Your task to perform on an android device: open app "Calculator" Image 0: 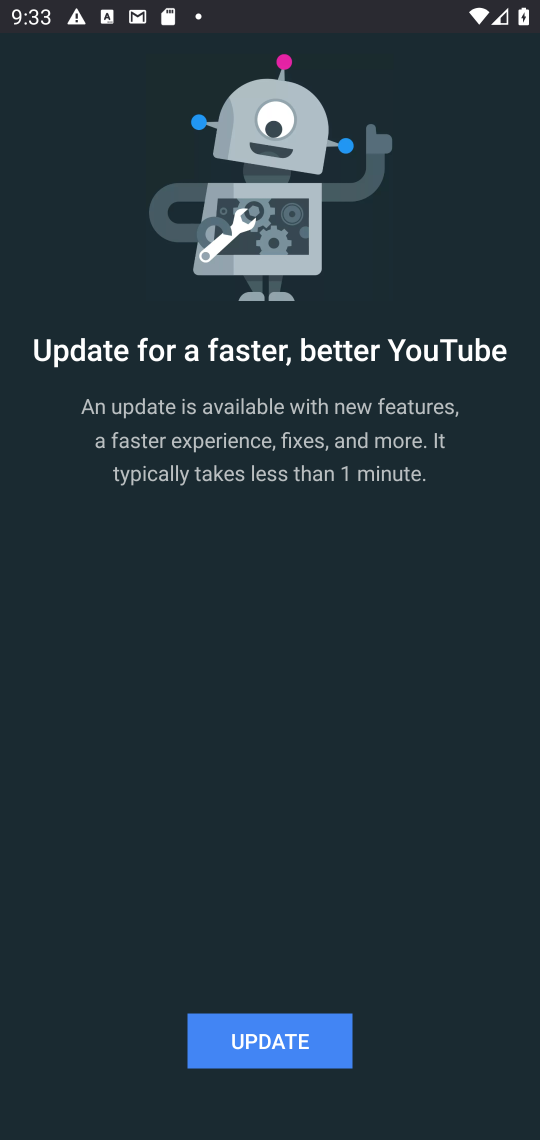
Step 0: press home button
Your task to perform on an android device: open app "Calculator" Image 1: 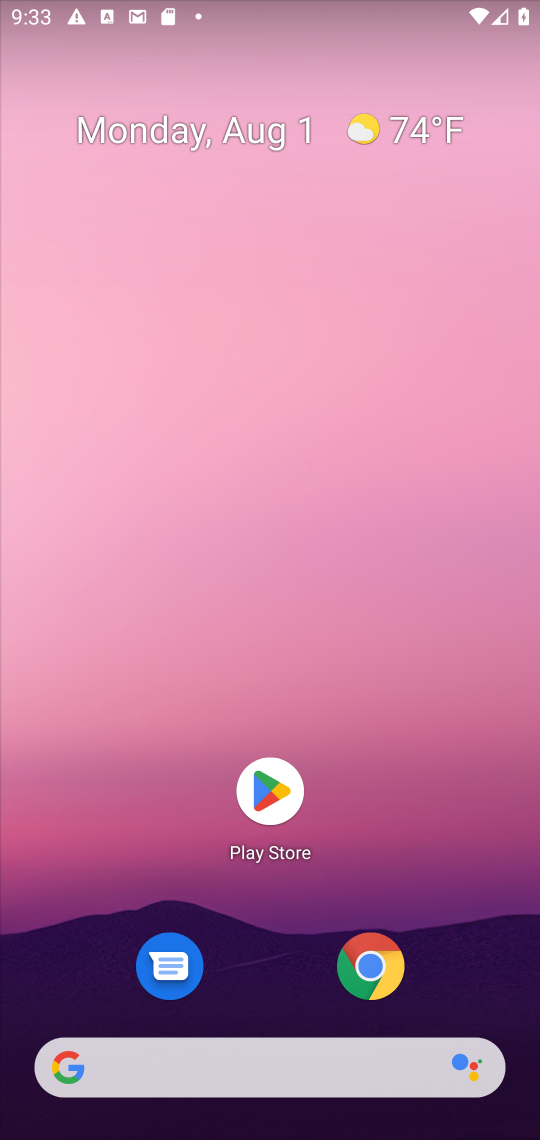
Step 1: drag from (98, 483) to (0, 482)
Your task to perform on an android device: open app "Calculator" Image 2: 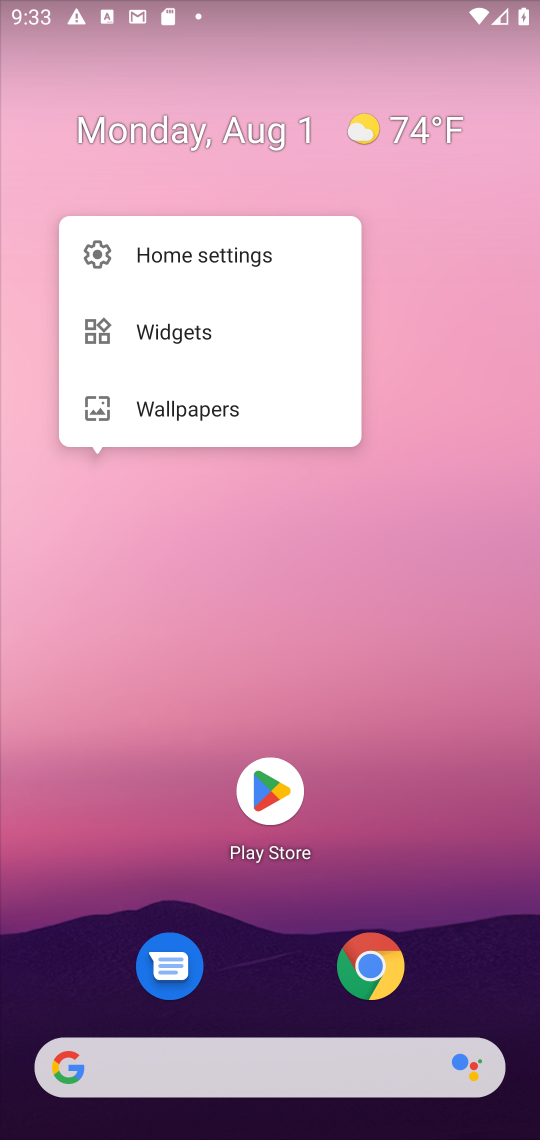
Step 2: click (441, 574)
Your task to perform on an android device: open app "Calculator" Image 3: 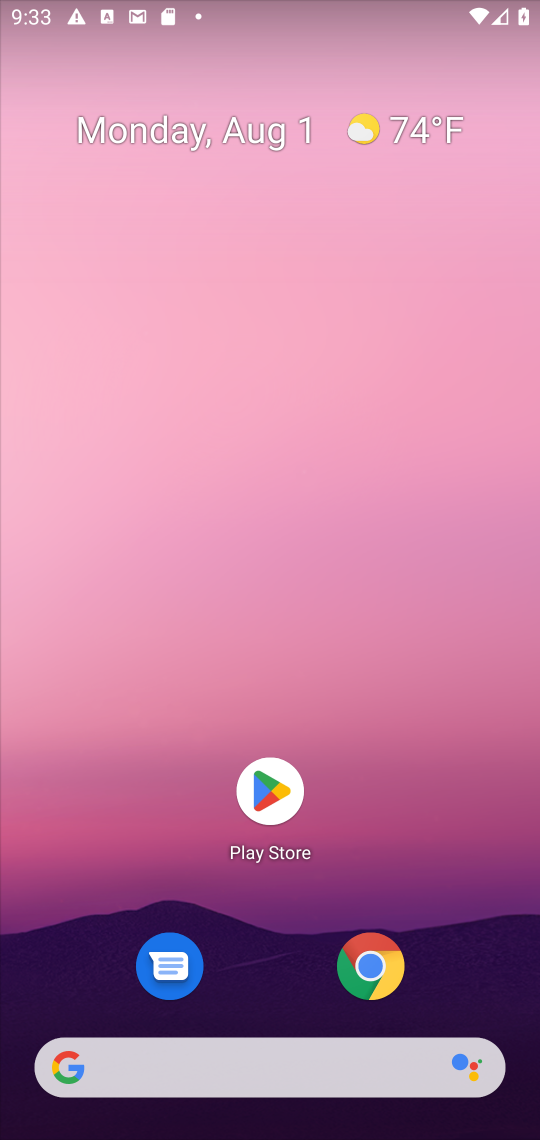
Step 3: drag from (518, 434) to (33, 435)
Your task to perform on an android device: open app "Calculator" Image 4: 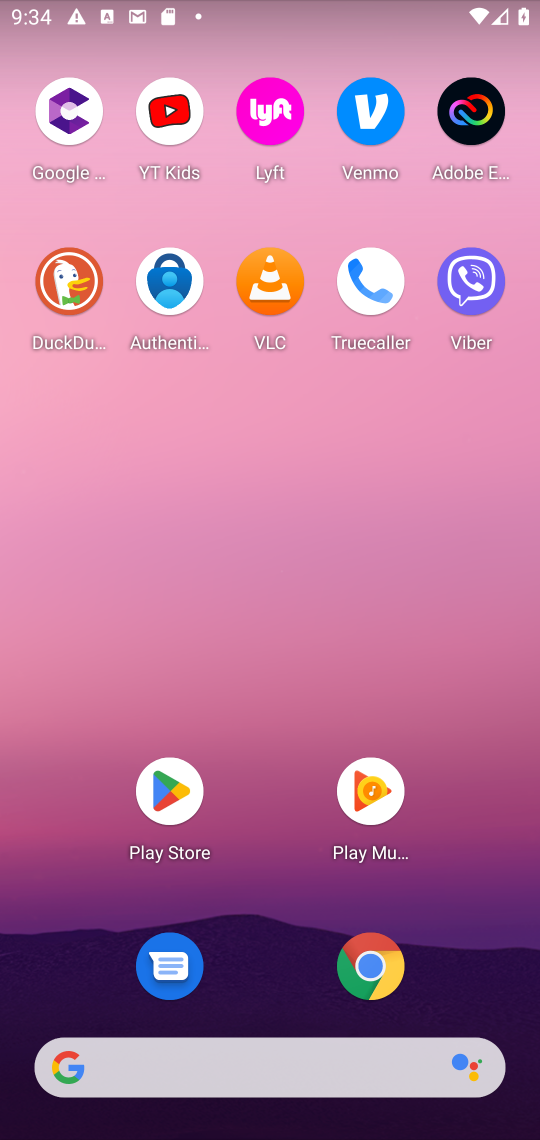
Step 4: drag from (534, 1107) to (429, 139)
Your task to perform on an android device: open app "Calculator" Image 5: 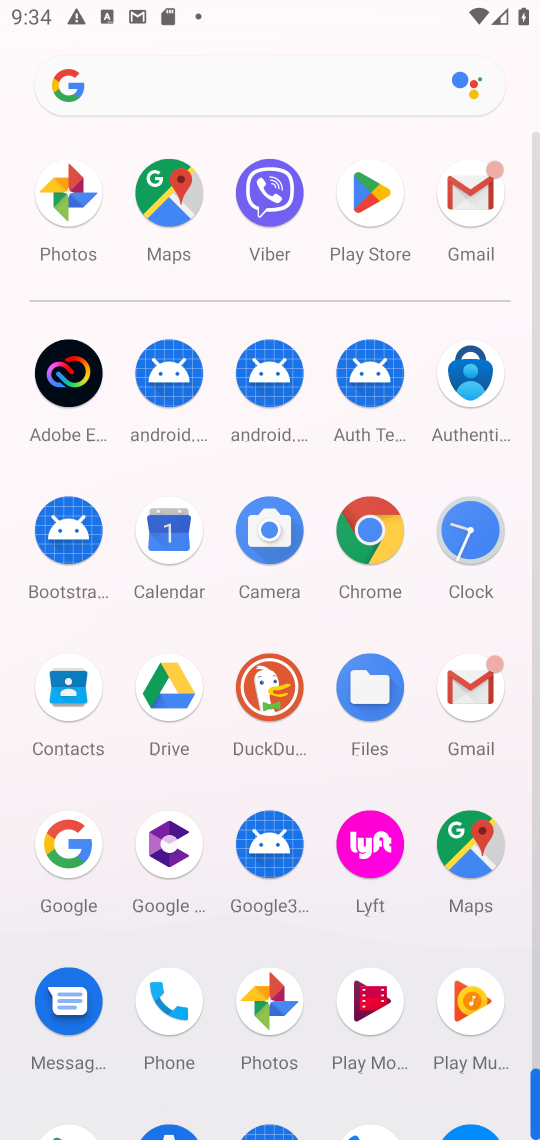
Step 5: drag from (316, 977) to (286, 540)
Your task to perform on an android device: open app "Calculator" Image 6: 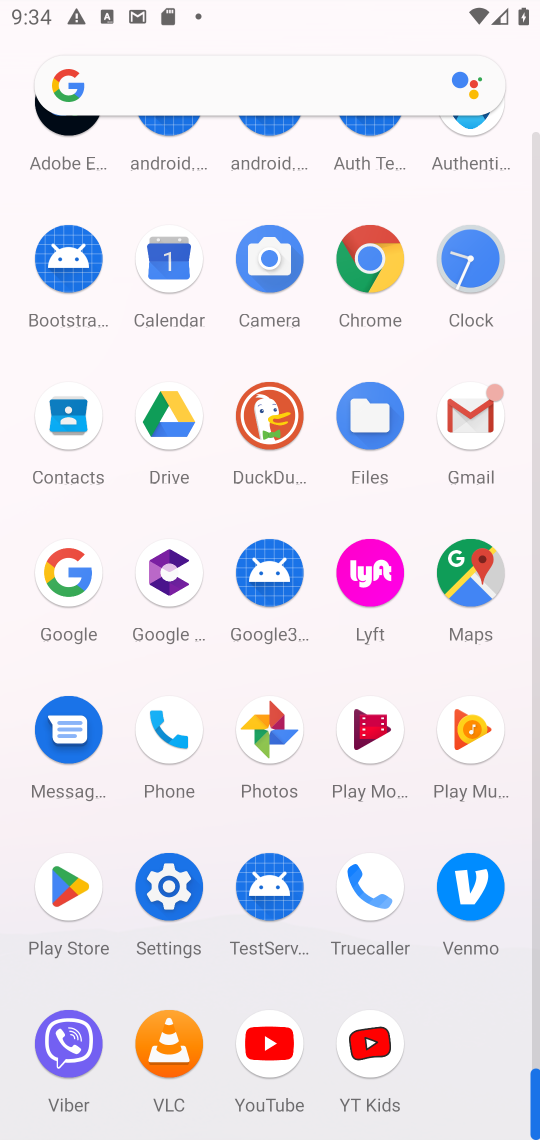
Step 6: click (74, 885)
Your task to perform on an android device: open app "Calculator" Image 7: 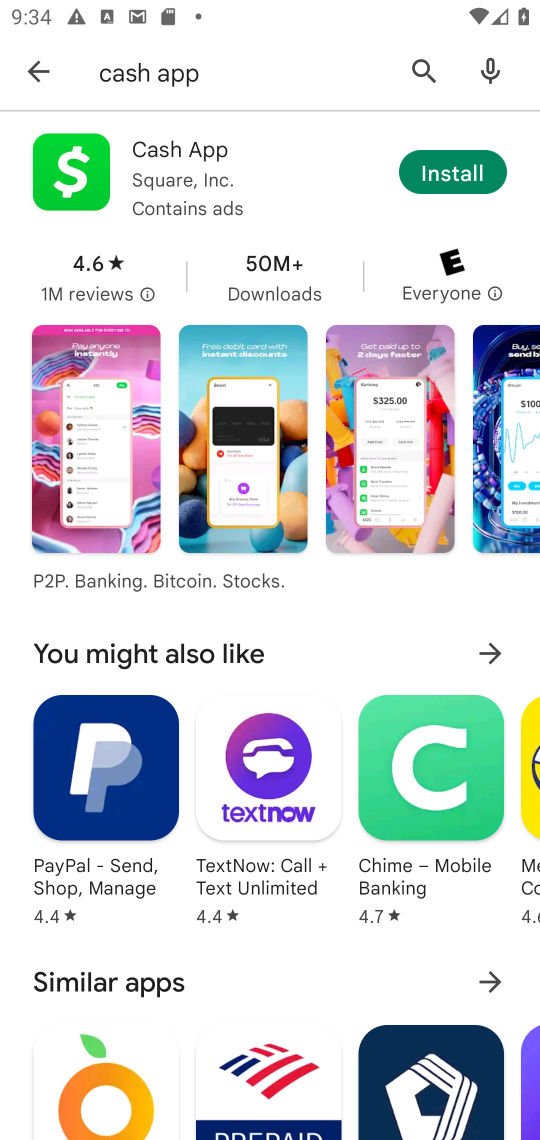
Step 7: click (426, 64)
Your task to perform on an android device: open app "Calculator" Image 8: 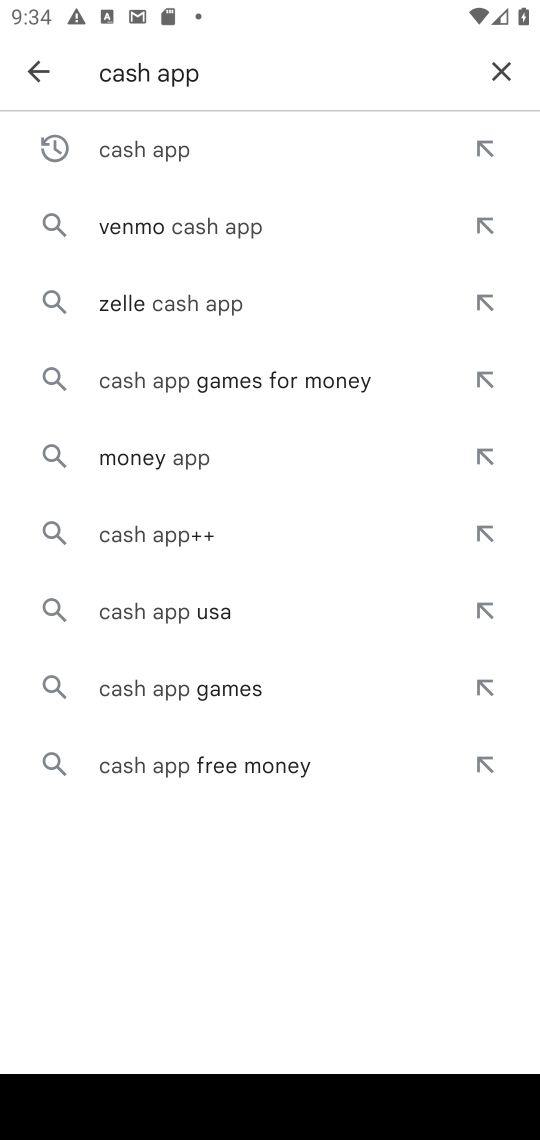
Step 8: click (499, 63)
Your task to perform on an android device: open app "Calculator" Image 9: 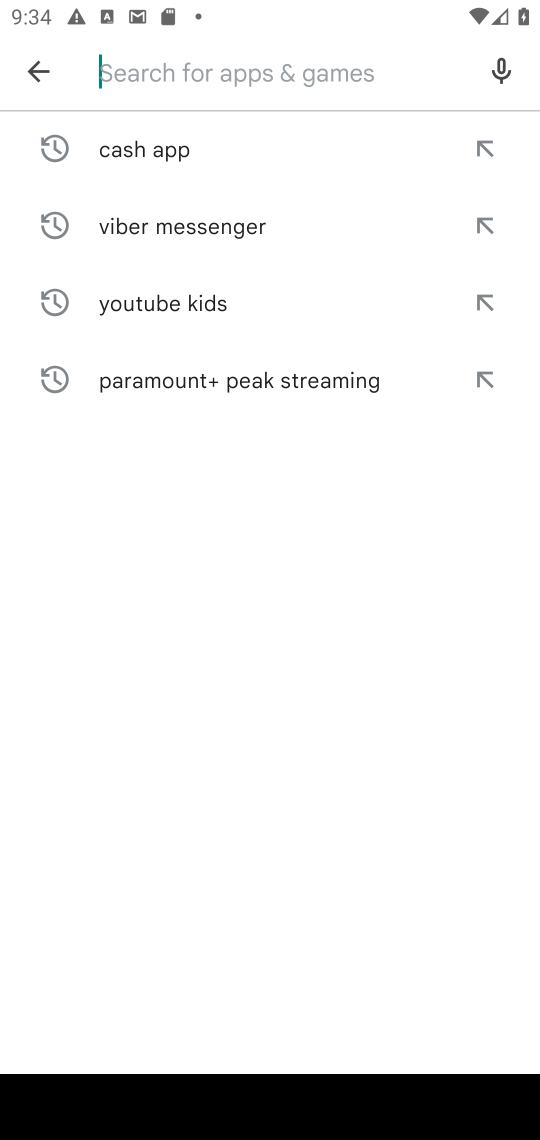
Step 9: type "Calculator"
Your task to perform on an android device: open app "Calculator" Image 10: 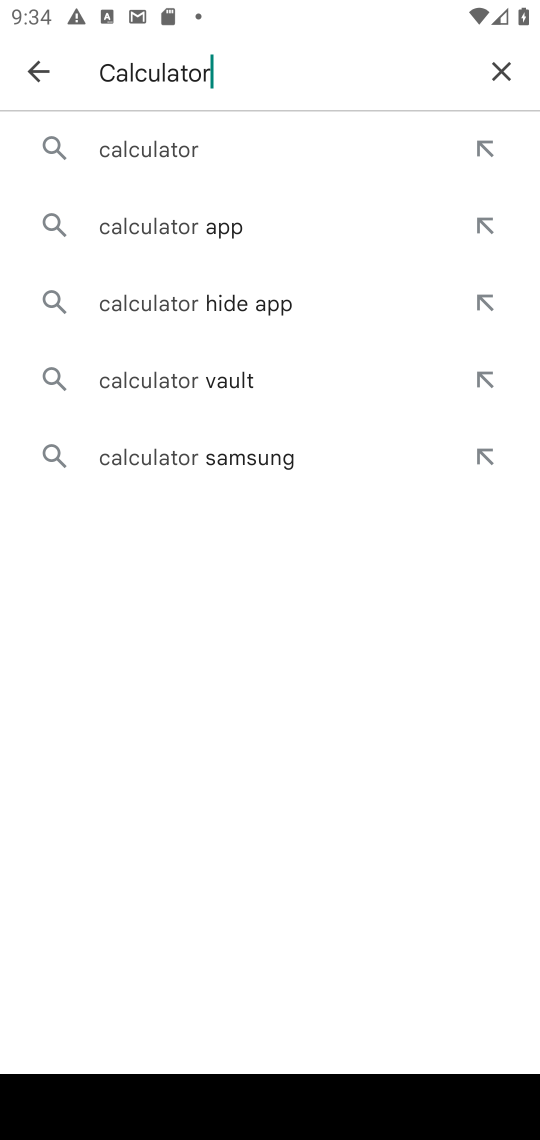
Step 10: click (181, 150)
Your task to perform on an android device: open app "Calculator" Image 11: 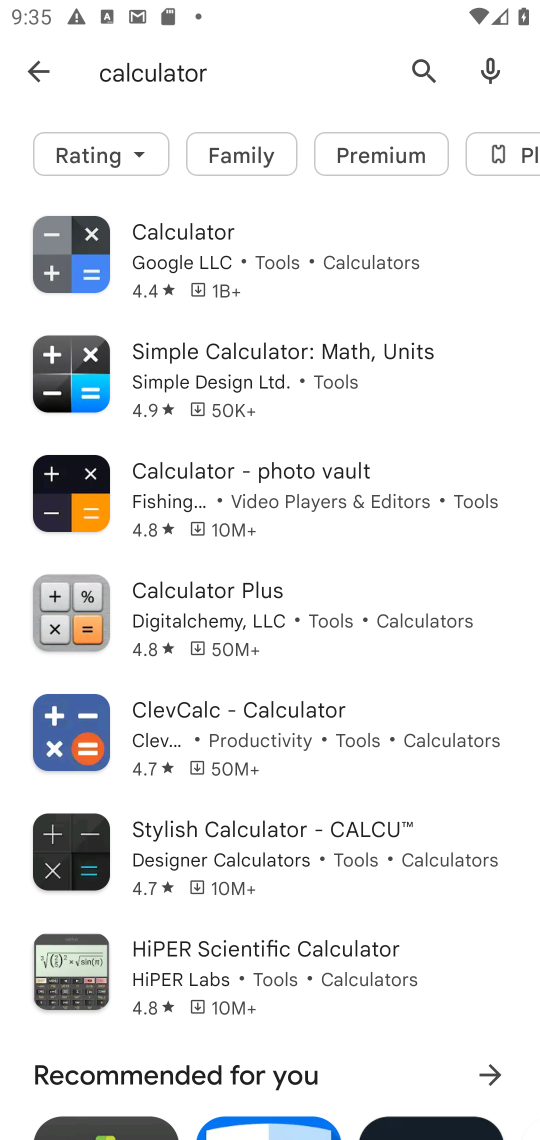
Step 11: click (104, 256)
Your task to perform on an android device: open app "Calculator" Image 12: 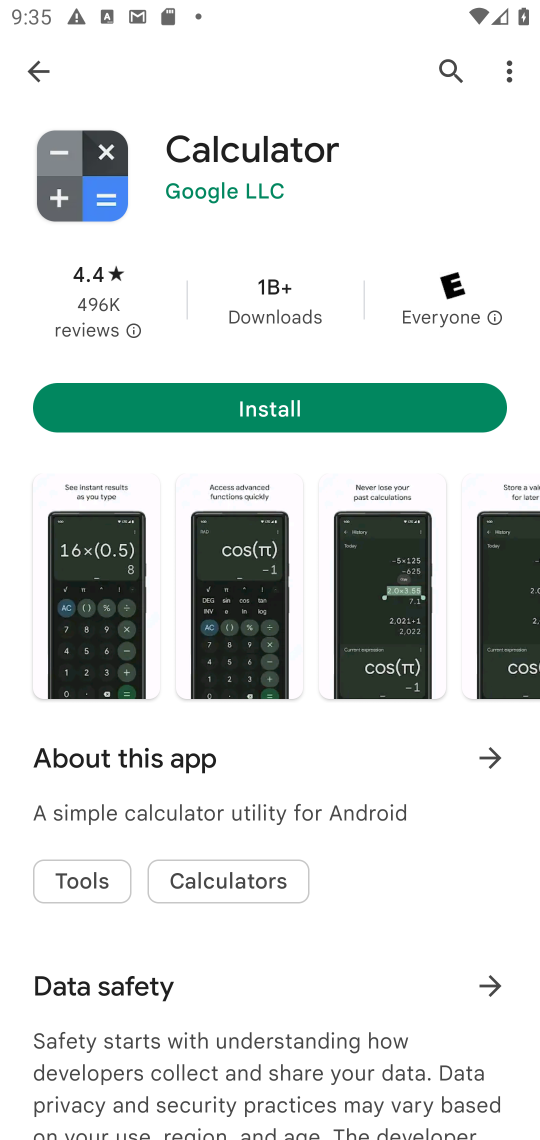
Step 12: task complete